Your task to perform on an android device: turn off location history Image 0: 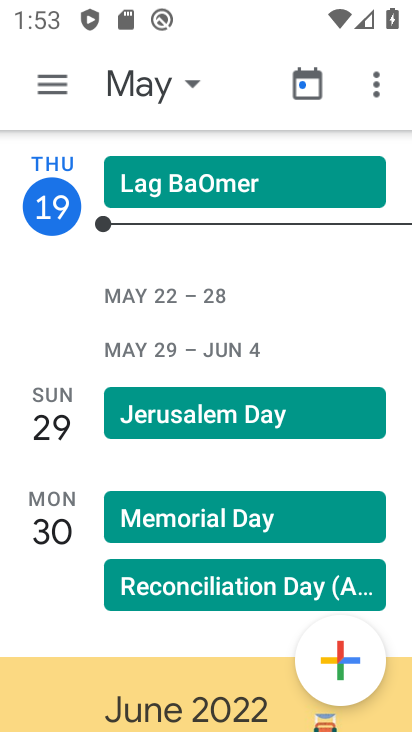
Step 0: press home button
Your task to perform on an android device: turn off location history Image 1: 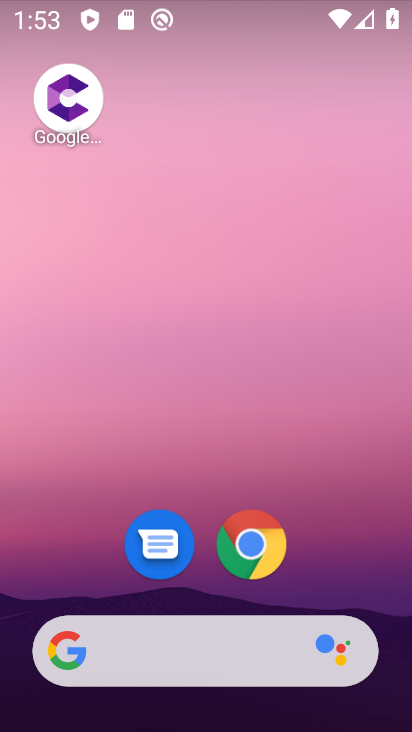
Step 1: drag from (291, 581) to (325, 154)
Your task to perform on an android device: turn off location history Image 2: 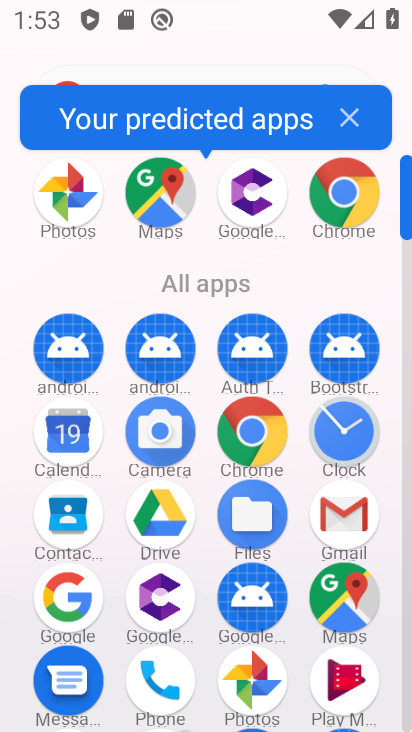
Step 2: drag from (296, 611) to (346, 264)
Your task to perform on an android device: turn off location history Image 3: 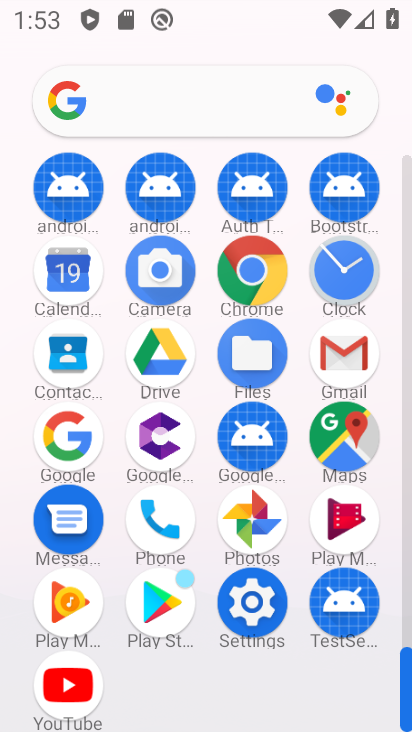
Step 3: click (270, 620)
Your task to perform on an android device: turn off location history Image 4: 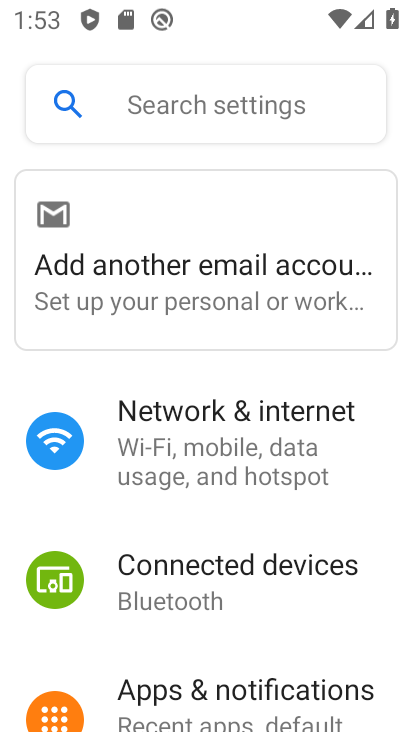
Step 4: drag from (264, 611) to (300, 169)
Your task to perform on an android device: turn off location history Image 5: 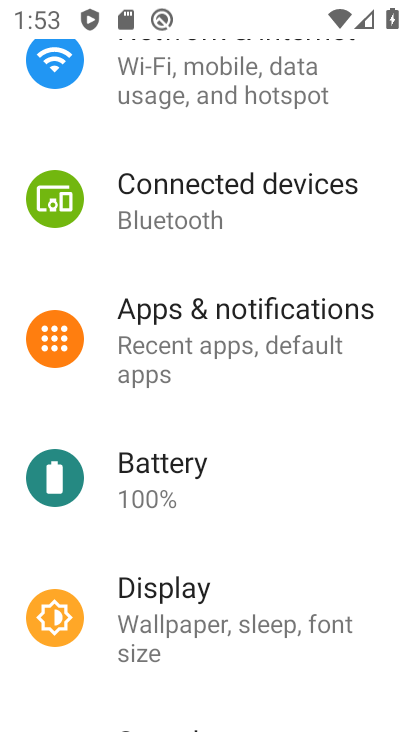
Step 5: drag from (281, 588) to (304, 231)
Your task to perform on an android device: turn off location history Image 6: 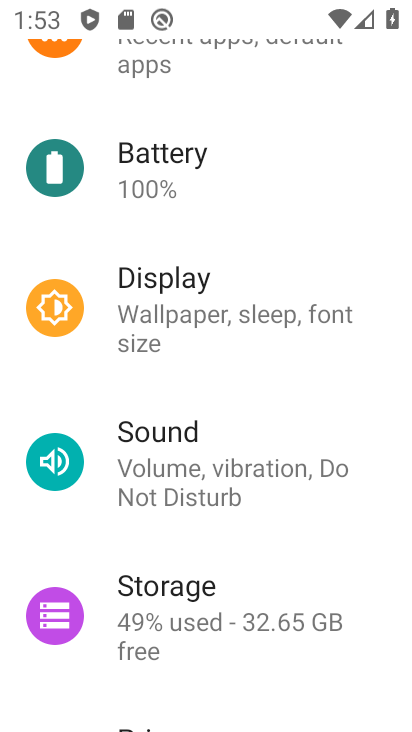
Step 6: drag from (251, 536) to (253, 236)
Your task to perform on an android device: turn off location history Image 7: 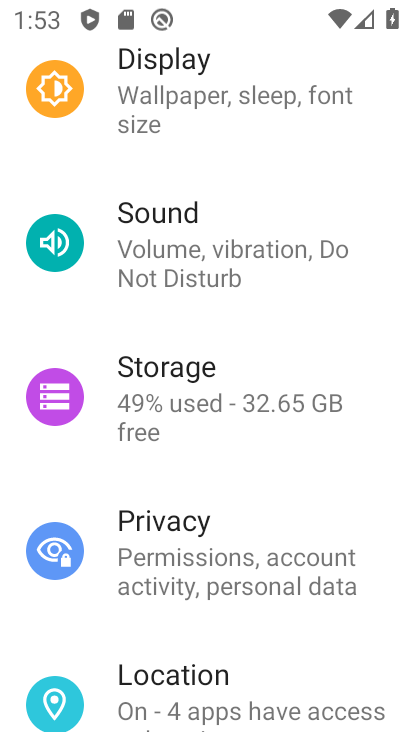
Step 7: drag from (213, 641) to (253, 323)
Your task to perform on an android device: turn off location history Image 8: 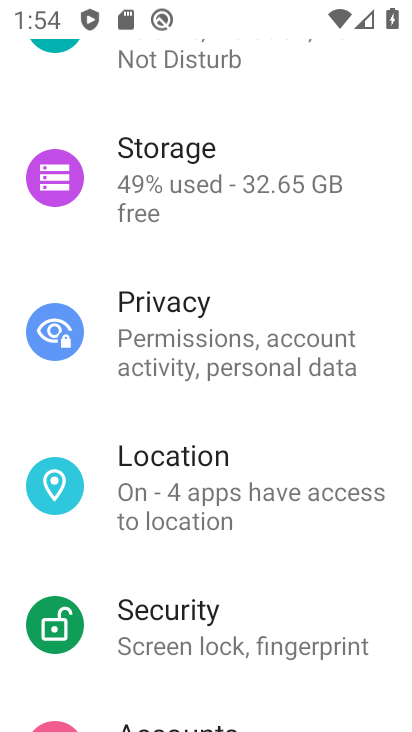
Step 8: click (262, 480)
Your task to perform on an android device: turn off location history Image 9: 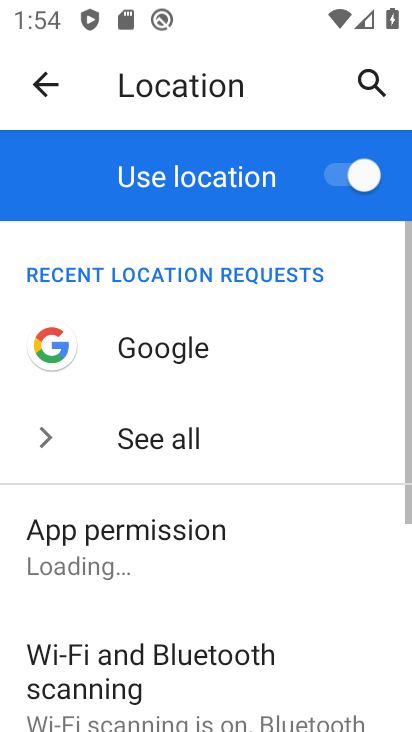
Step 9: drag from (248, 573) to (283, 196)
Your task to perform on an android device: turn off location history Image 10: 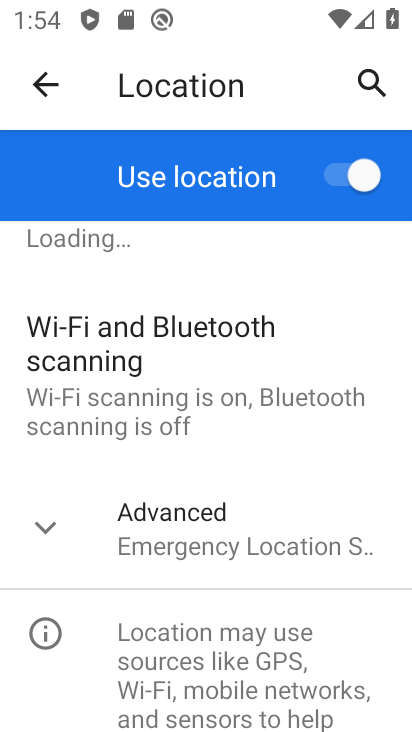
Step 10: click (278, 585)
Your task to perform on an android device: turn off location history Image 11: 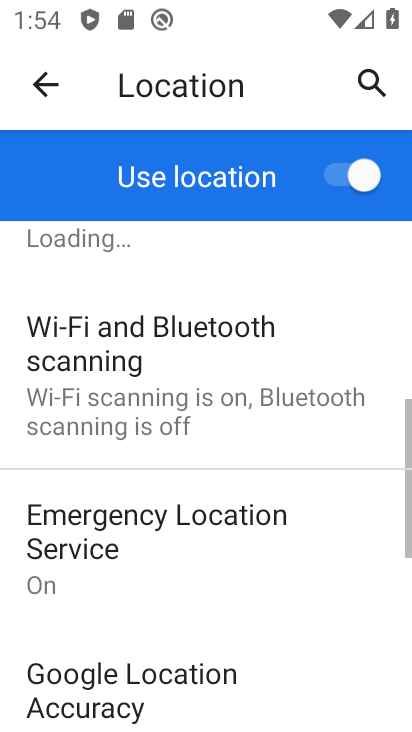
Step 11: drag from (278, 585) to (283, 220)
Your task to perform on an android device: turn off location history Image 12: 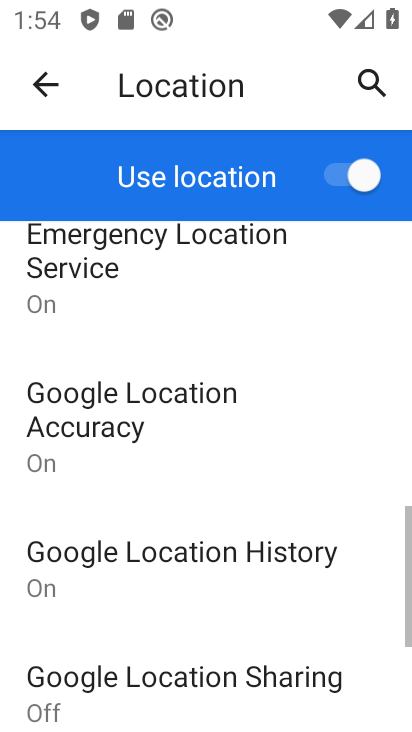
Step 12: click (239, 550)
Your task to perform on an android device: turn off location history Image 13: 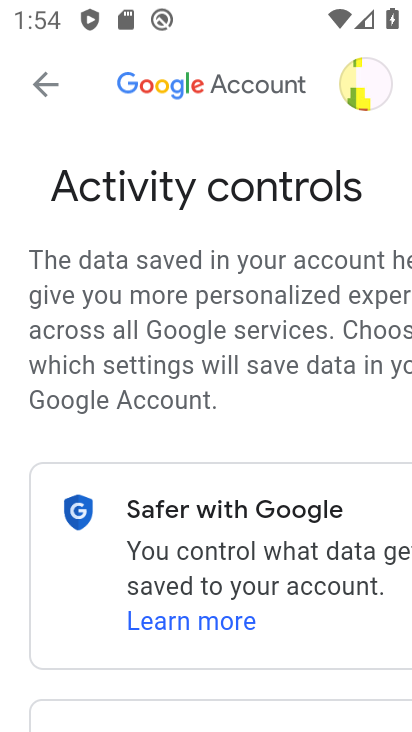
Step 13: drag from (239, 550) to (274, 211)
Your task to perform on an android device: turn off location history Image 14: 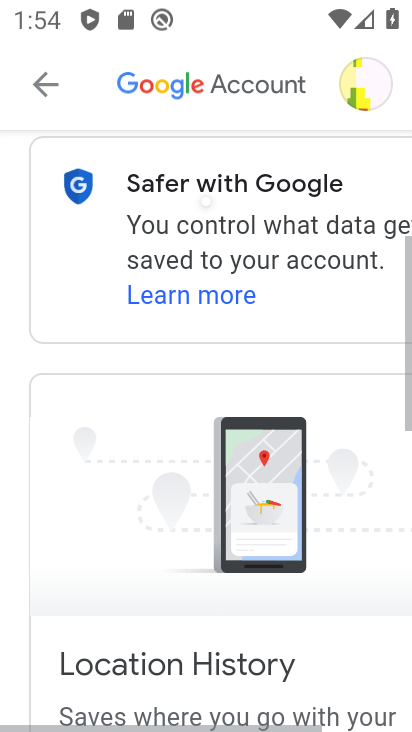
Step 14: drag from (304, 577) to (316, 207)
Your task to perform on an android device: turn off location history Image 15: 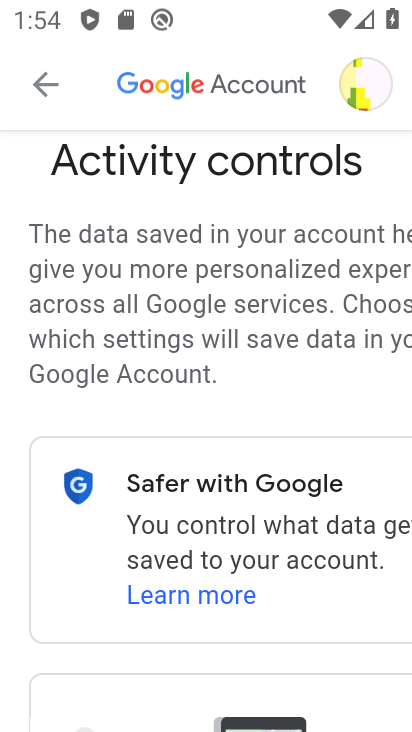
Step 15: drag from (303, 600) to (317, 216)
Your task to perform on an android device: turn off location history Image 16: 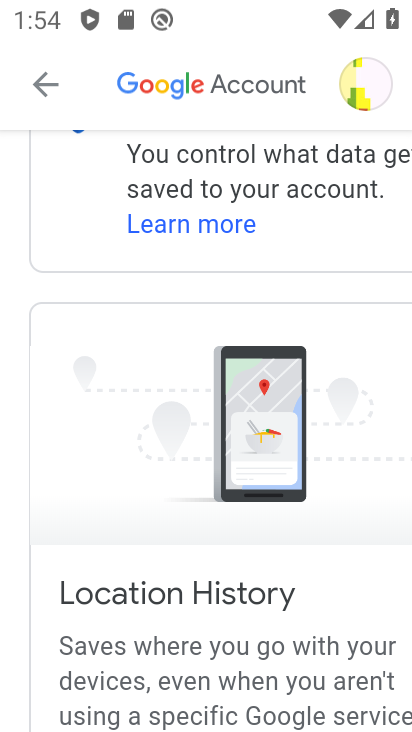
Step 16: drag from (304, 576) to (338, 225)
Your task to perform on an android device: turn off location history Image 17: 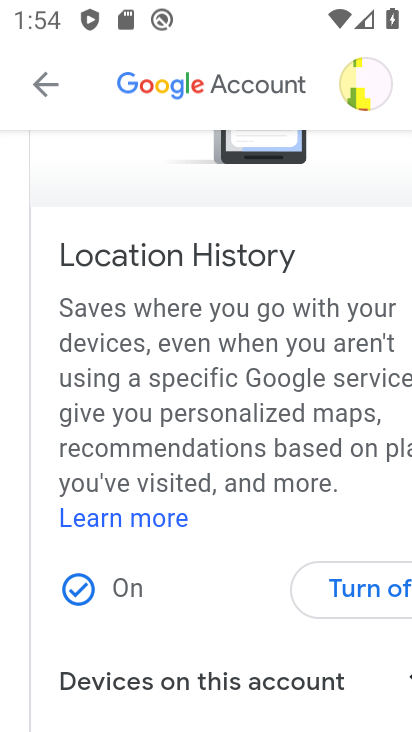
Step 17: click (341, 595)
Your task to perform on an android device: turn off location history Image 18: 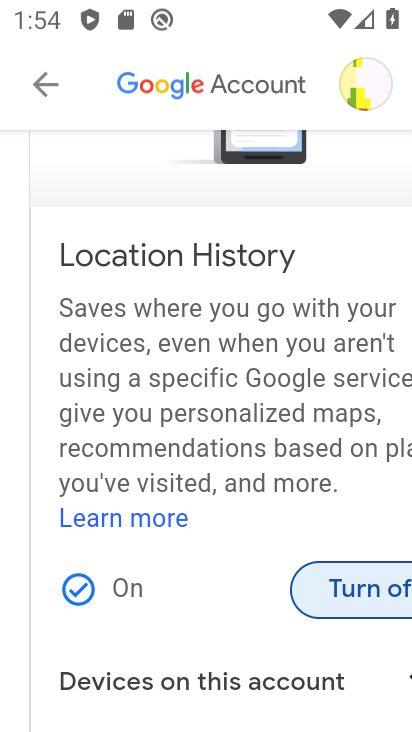
Step 18: click (372, 582)
Your task to perform on an android device: turn off location history Image 19: 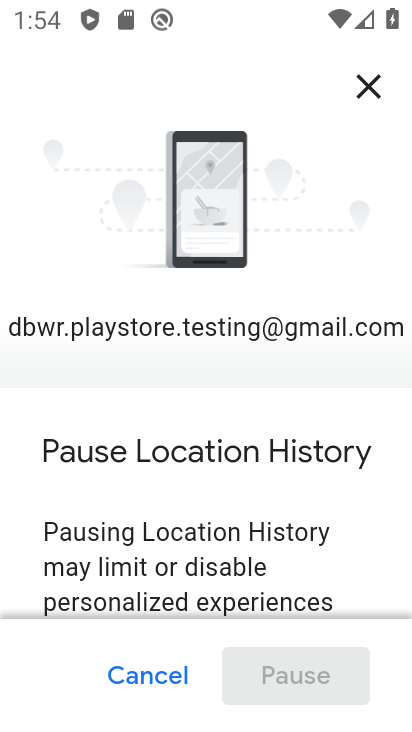
Step 19: drag from (355, 590) to (338, 184)
Your task to perform on an android device: turn off location history Image 20: 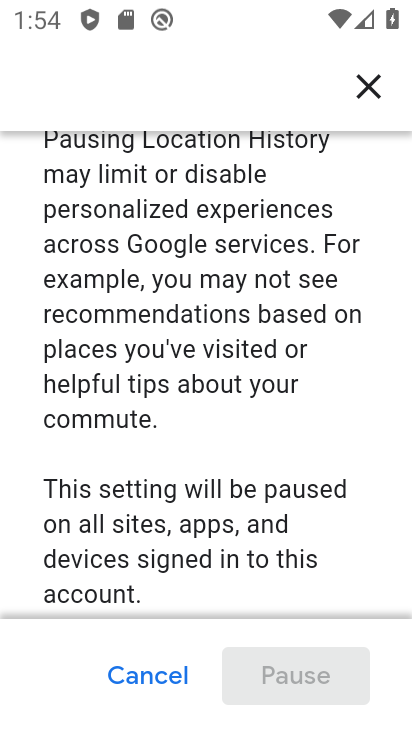
Step 20: drag from (264, 570) to (282, 207)
Your task to perform on an android device: turn off location history Image 21: 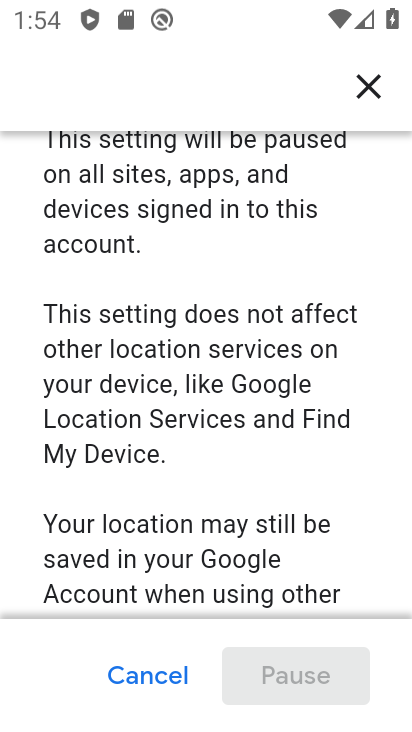
Step 21: drag from (266, 592) to (301, 193)
Your task to perform on an android device: turn off location history Image 22: 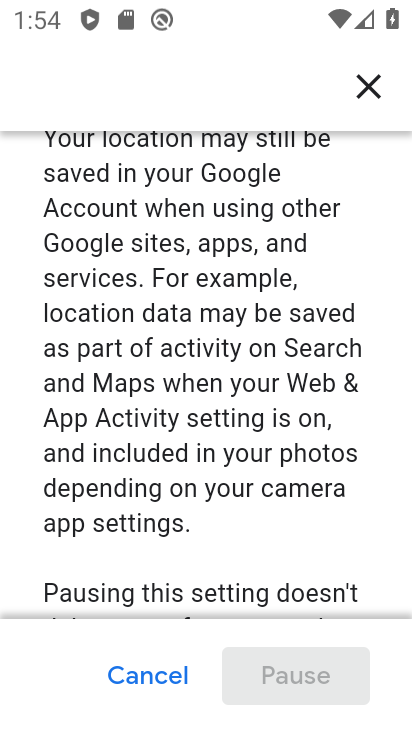
Step 22: drag from (268, 569) to (272, 219)
Your task to perform on an android device: turn off location history Image 23: 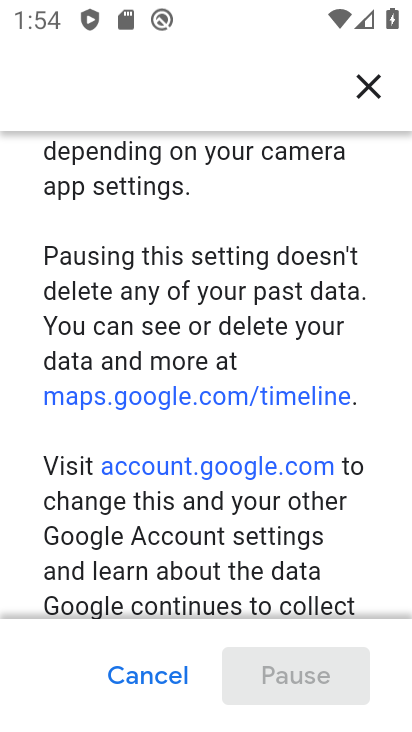
Step 23: drag from (264, 574) to (276, 170)
Your task to perform on an android device: turn off location history Image 24: 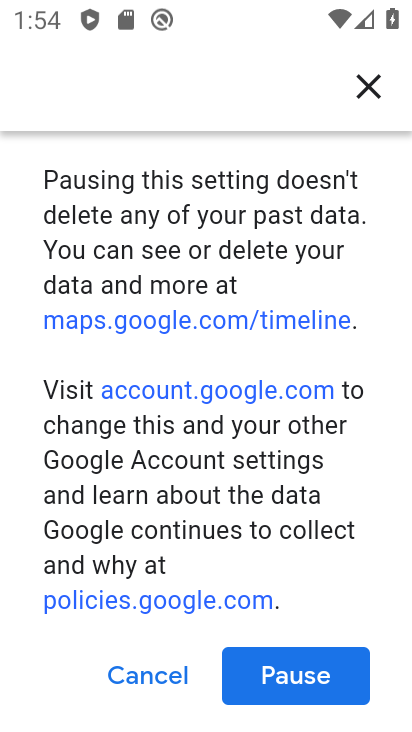
Step 24: click (279, 676)
Your task to perform on an android device: turn off location history Image 25: 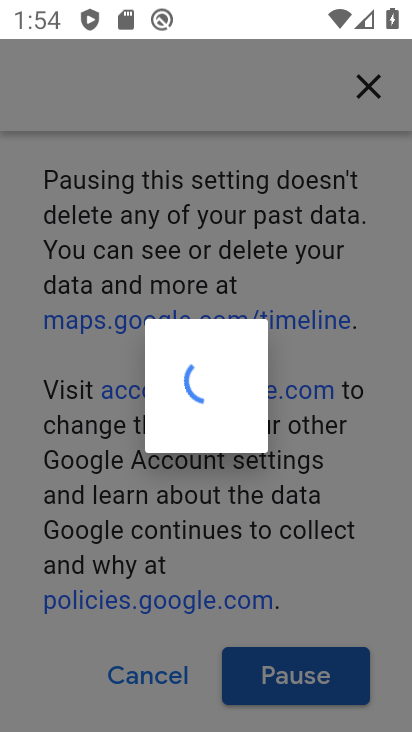
Step 25: click (315, 669)
Your task to perform on an android device: turn off location history Image 26: 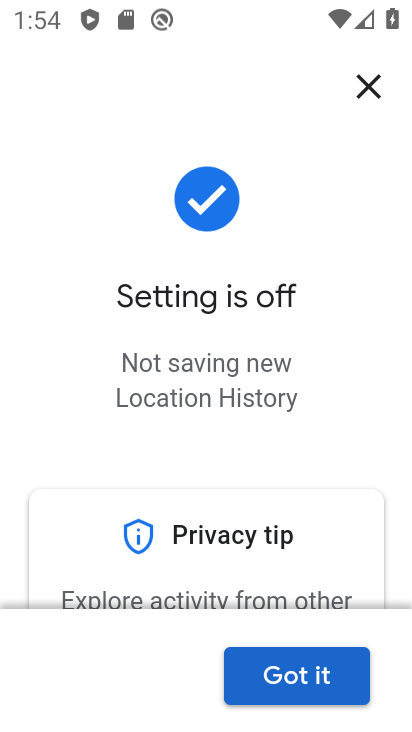
Step 26: click (317, 672)
Your task to perform on an android device: turn off location history Image 27: 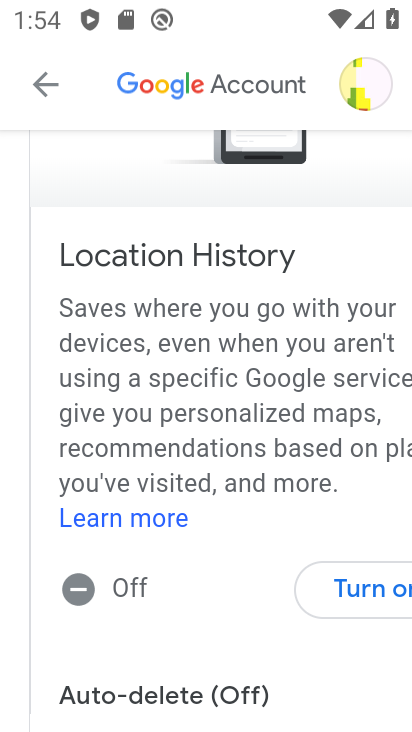
Step 27: task complete